Your task to perform on an android device: Go to Amazon Image 0: 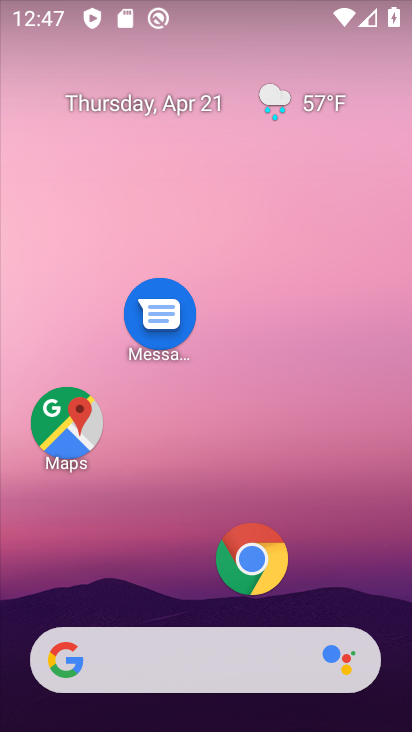
Step 0: drag from (230, 566) to (292, 340)
Your task to perform on an android device: Go to Amazon Image 1: 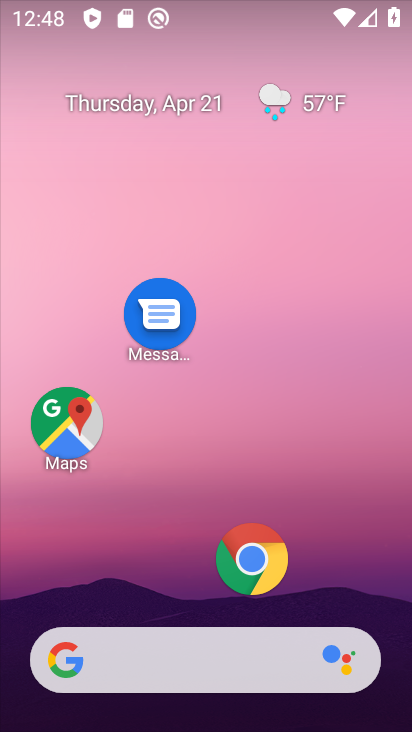
Step 1: drag from (203, 612) to (271, 374)
Your task to perform on an android device: Go to Amazon Image 2: 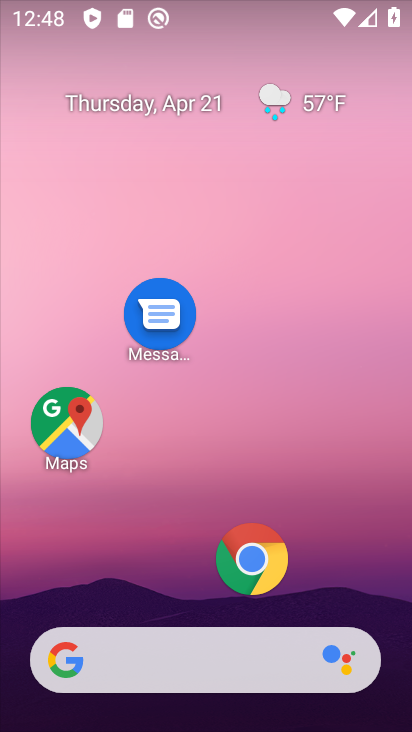
Step 2: click (257, 558)
Your task to perform on an android device: Go to Amazon Image 3: 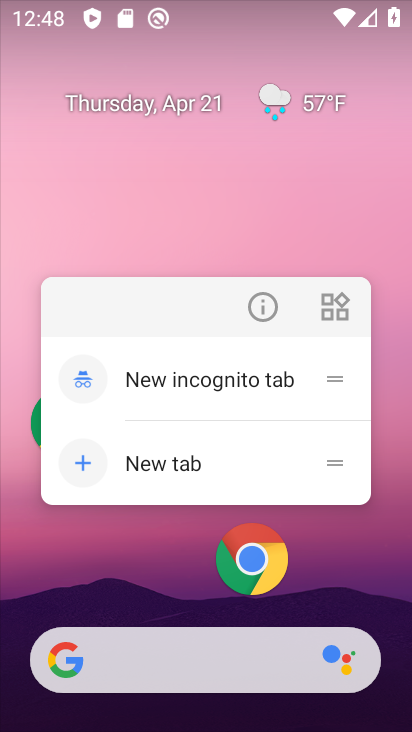
Step 3: click (257, 557)
Your task to perform on an android device: Go to Amazon Image 4: 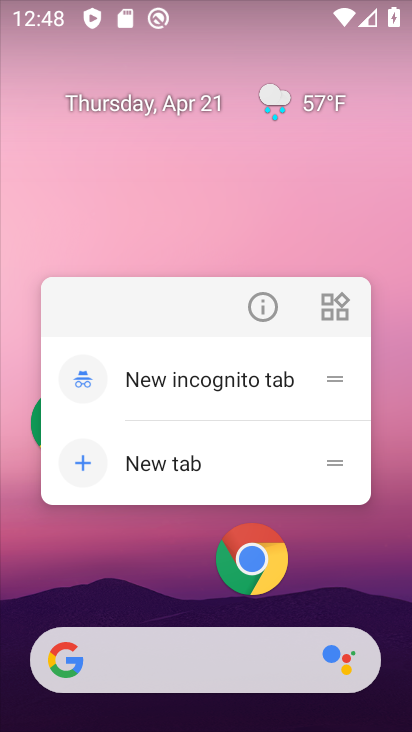
Step 4: click (257, 557)
Your task to perform on an android device: Go to Amazon Image 5: 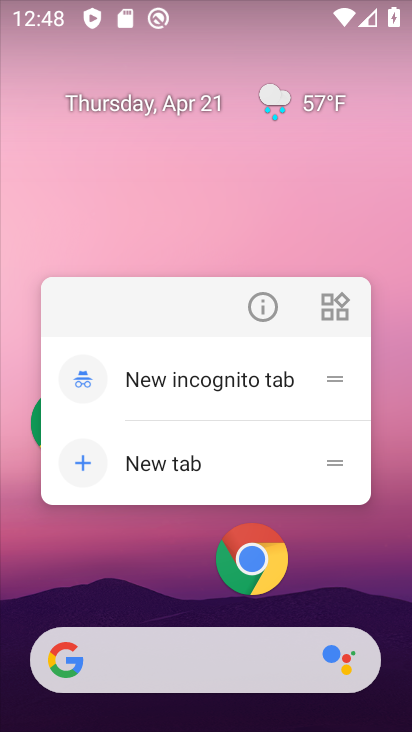
Step 5: click (253, 566)
Your task to perform on an android device: Go to Amazon Image 6: 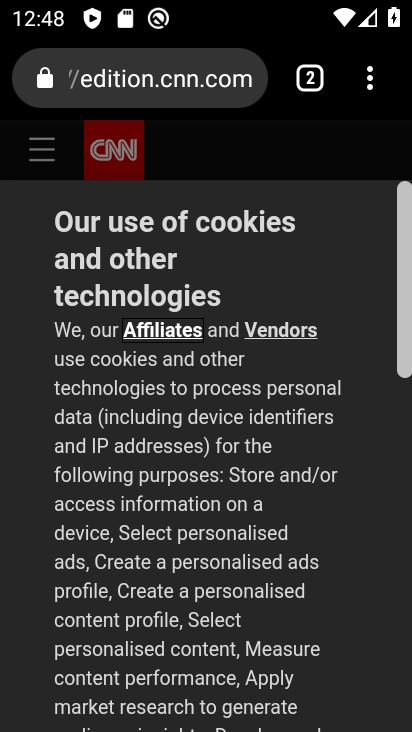
Step 6: click (305, 71)
Your task to perform on an android device: Go to Amazon Image 7: 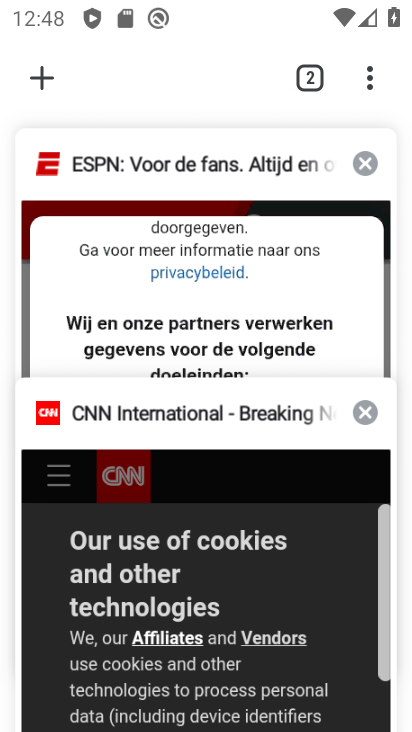
Step 7: click (367, 157)
Your task to perform on an android device: Go to Amazon Image 8: 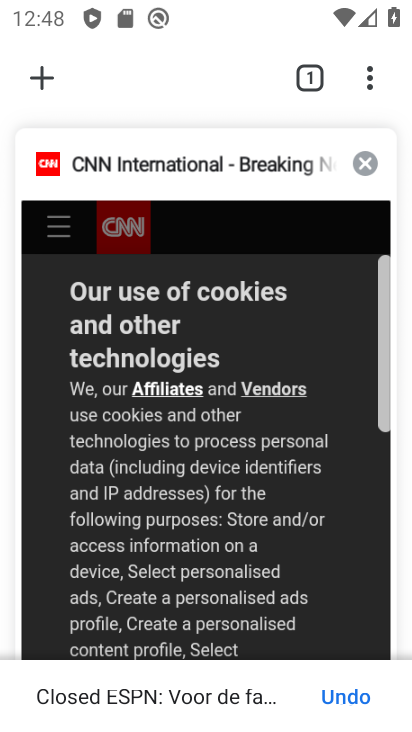
Step 8: click (356, 168)
Your task to perform on an android device: Go to Amazon Image 9: 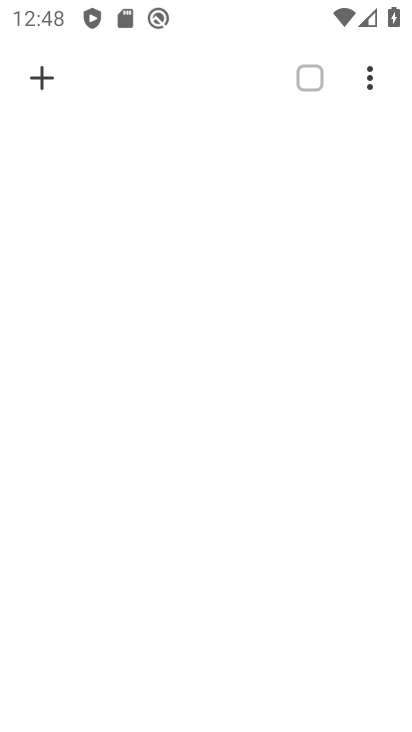
Step 9: click (41, 69)
Your task to perform on an android device: Go to Amazon Image 10: 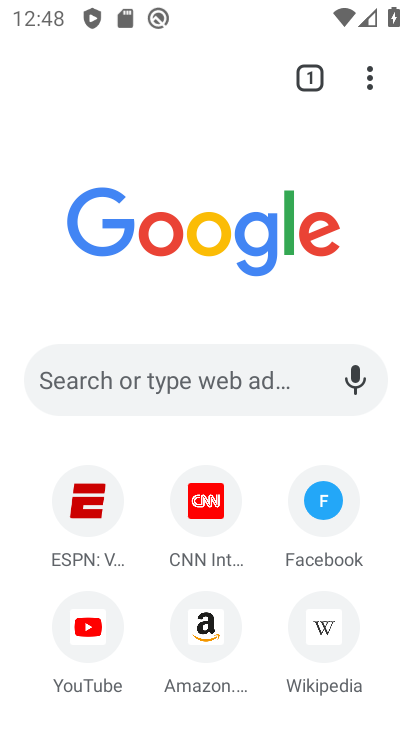
Step 10: click (207, 618)
Your task to perform on an android device: Go to Amazon Image 11: 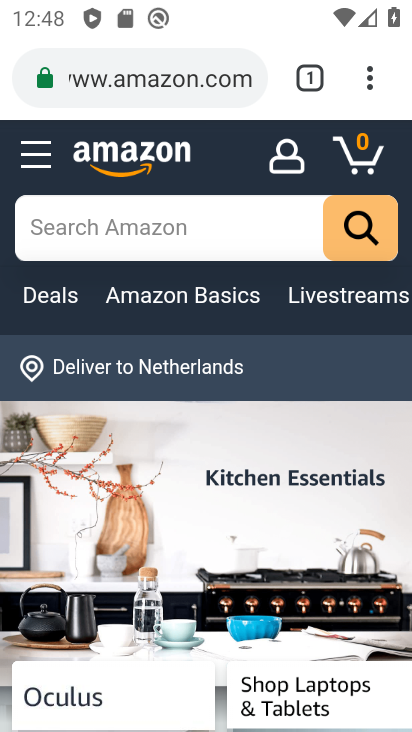
Step 11: task complete